Your task to perform on an android device: open a bookmark in the chrome app Image 0: 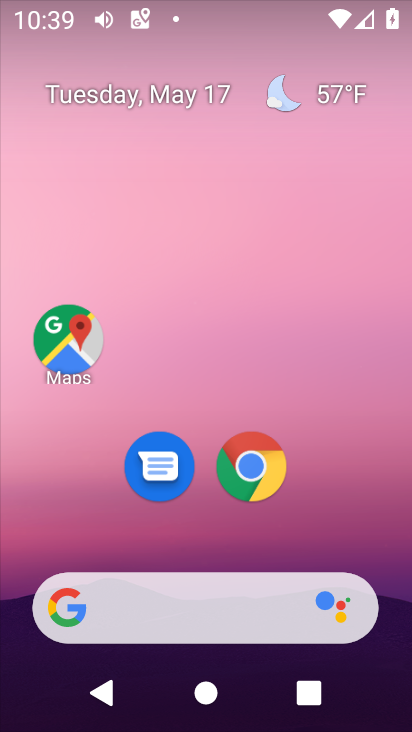
Step 0: drag from (227, 658) to (338, 176)
Your task to perform on an android device: open a bookmark in the chrome app Image 1: 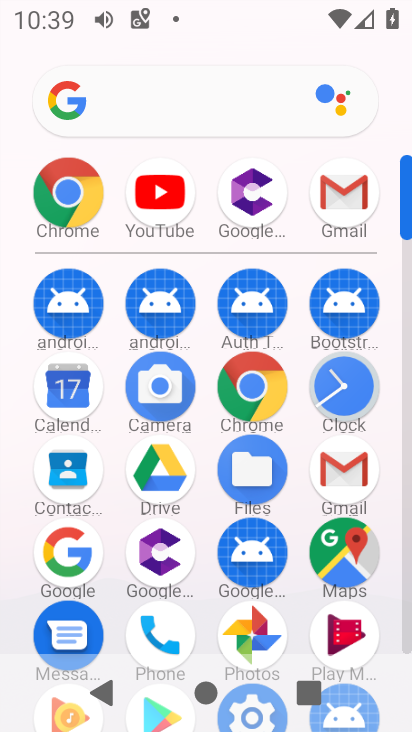
Step 1: click (91, 198)
Your task to perform on an android device: open a bookmark in the chrome app Image 2: 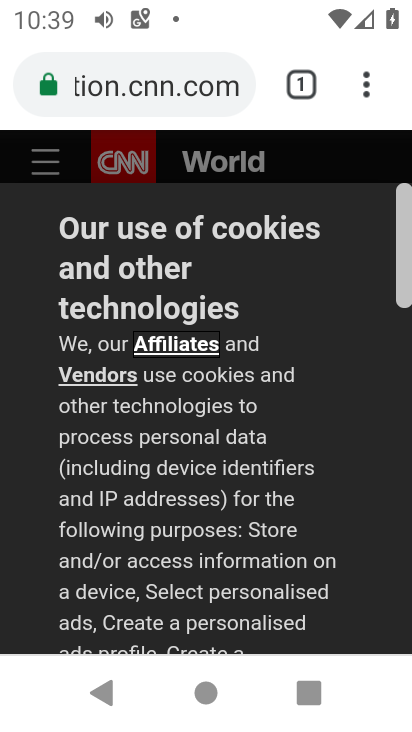
Step 2: click (352, 105)
Your task to perform on an android device: open a bookmark in the chrome app Image 3: 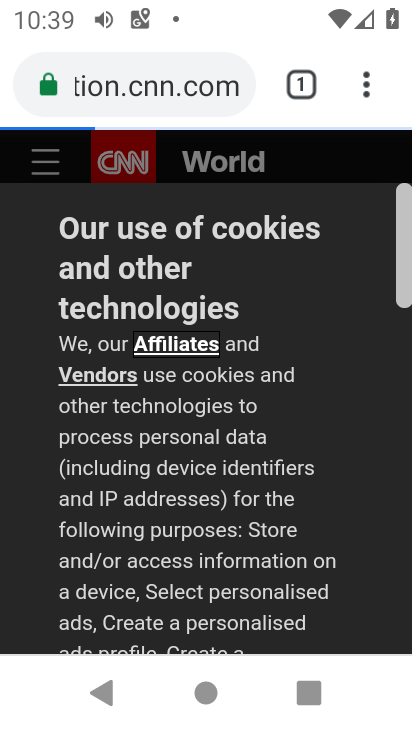
Step 3: click (364, 86)
Your task to perform on an android device: open a bookmark in the chrome app Image 4: 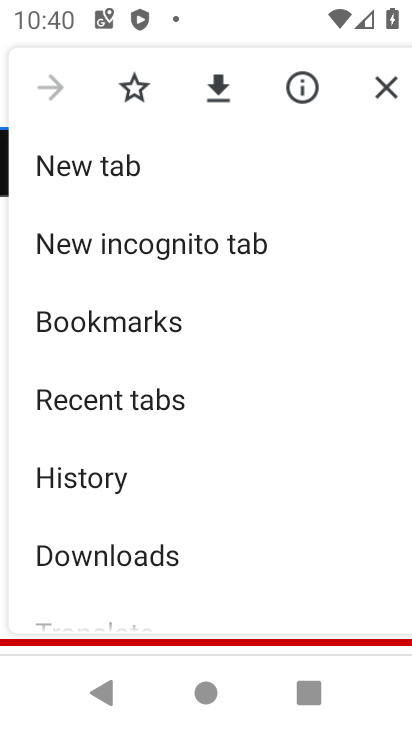
Step 4: click (115, 316)
Your task to perform on an android device: open a bookmark in the chrome app Image 5: 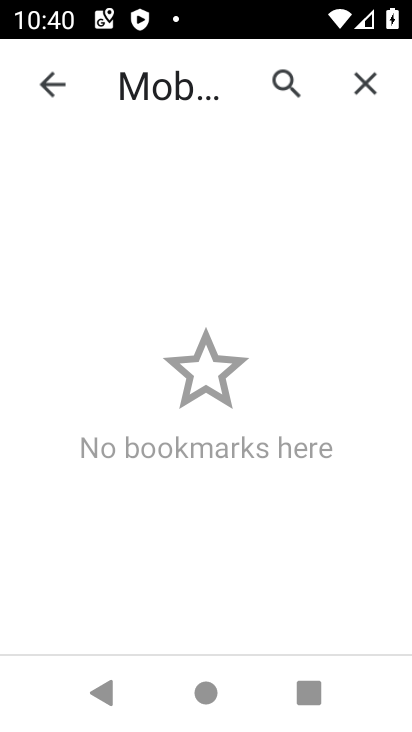
Step 5: task complete